Your task to perform on an android device: turn off notifications in google photos Image 0: 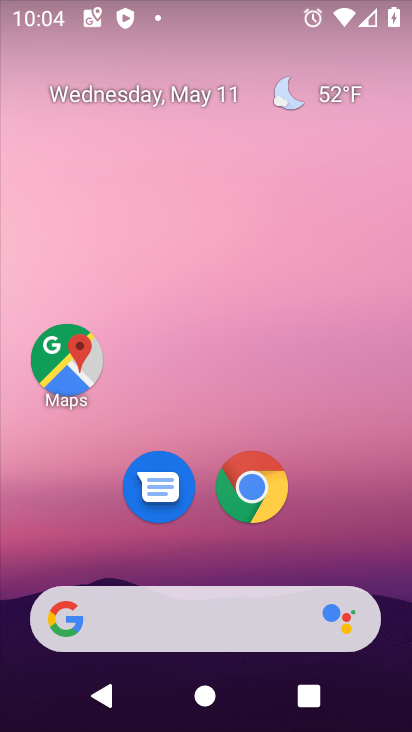
Step 0: drag from (199, 562) to (203, 124)
Your task to perform on an android device: turn off notifications in google photos Image 1: 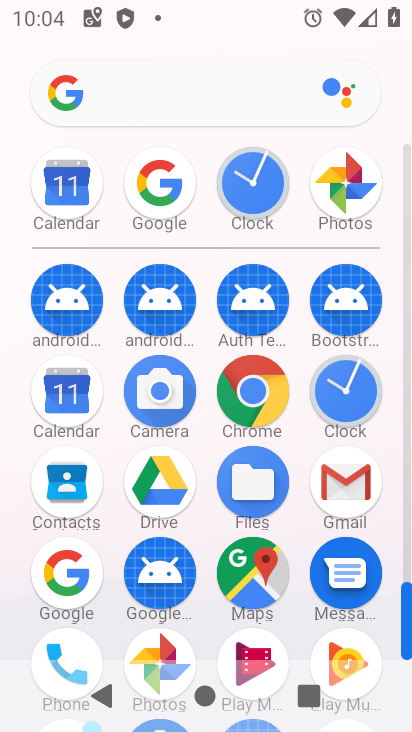
Step 1: click (333, 185)
Your task to perform on an android device: turn off notifications in google photos Image 2: 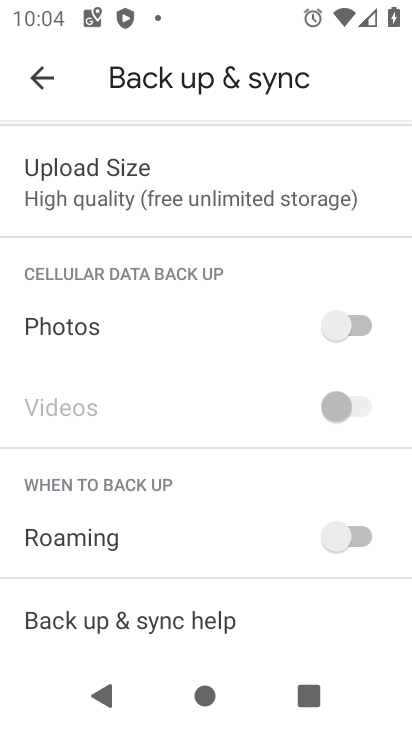
Step 2: drag from (168, 623) to (171, 231)
Your task to perform on an android device: turn off notifications in google photos Image 3: 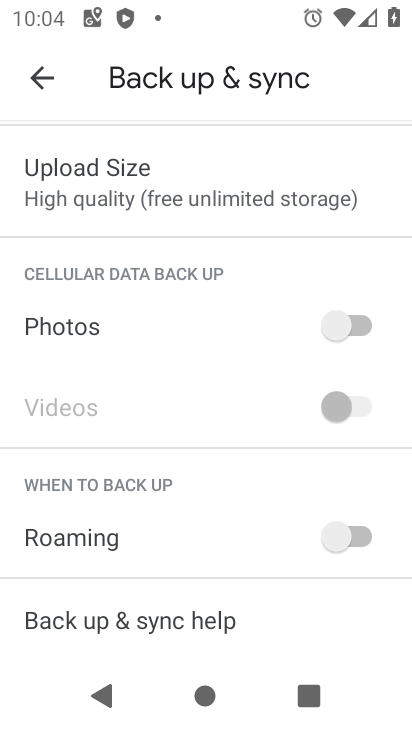
Step 3: drag from (178, 309) to (178, 565)
Your task to perform on an android device: turn off notifications in google photos Image 4: 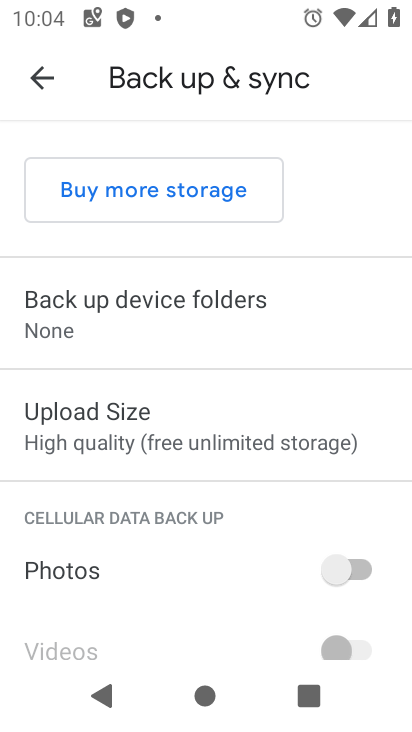
Step 4: click (39, 88)
Your task to perform on an android device: turn off notifications in google photos Image 5: 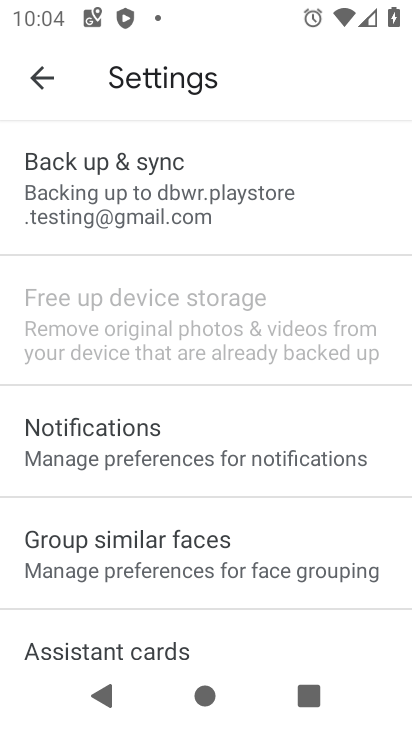
Step 5: click (144, 463)
Your task to perform on an android device: turn off notifications in google photos Image 6: 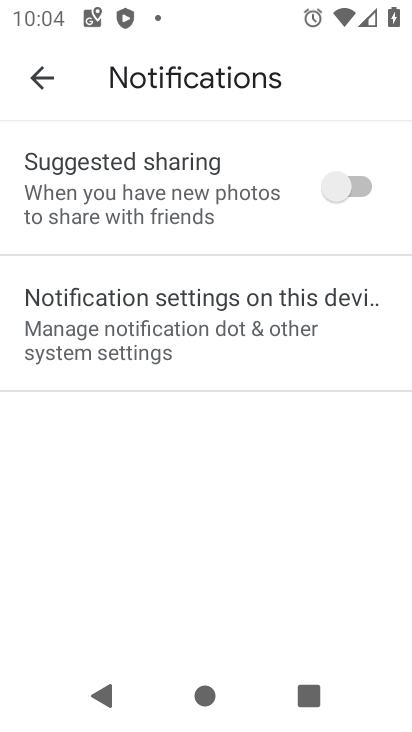
Step 6: click (176, 329)
Your task to perform on an android device: turn off notifications in google photos Image 7: 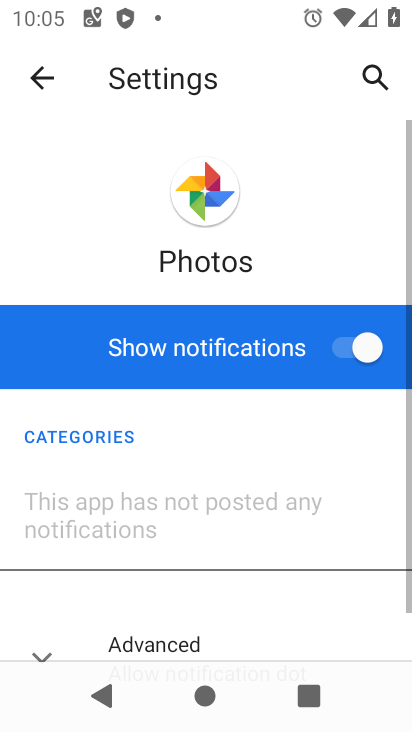
Step 7: click (340, 357)
Your task to perform on an android device: turn off notifications in google photos Image 8: 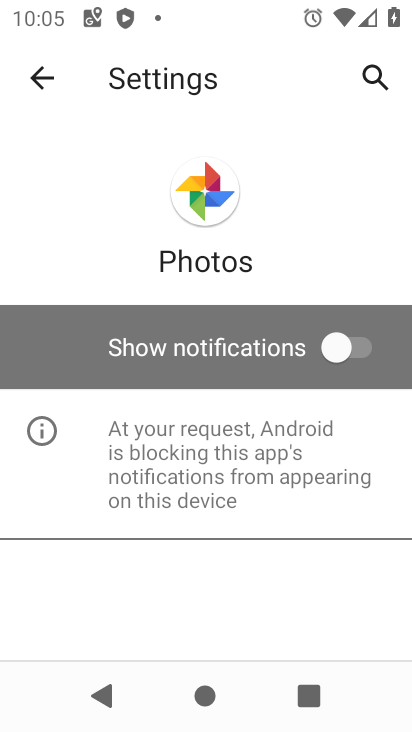
Step 8: task complete